Your task to perform on an android device: uninstall "Move to iOS" Image 0: 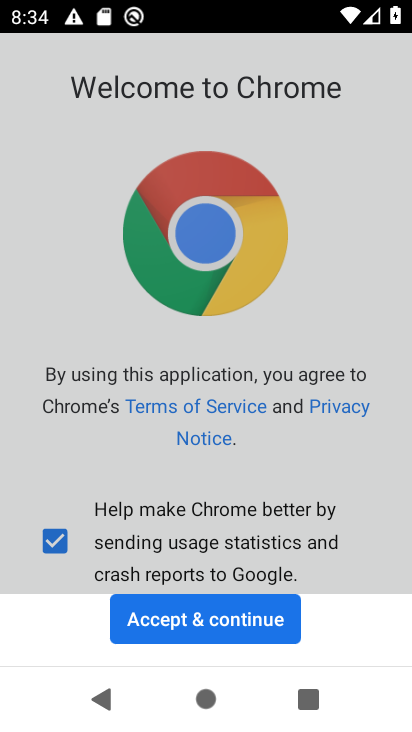
Step 0: press home button
Your task to perform on an android device: uninstall "Move to iOS" Image 1: 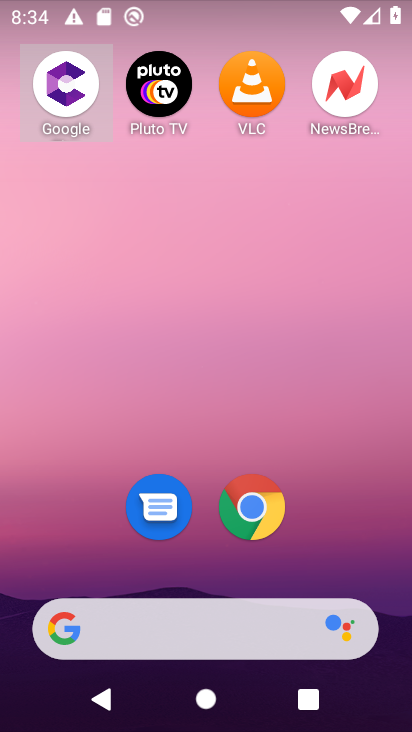
Step 1: drag from (189, 632) to (193, 109)
Your task to perform on an android device: uninstall "Move to iOS" Image 2: 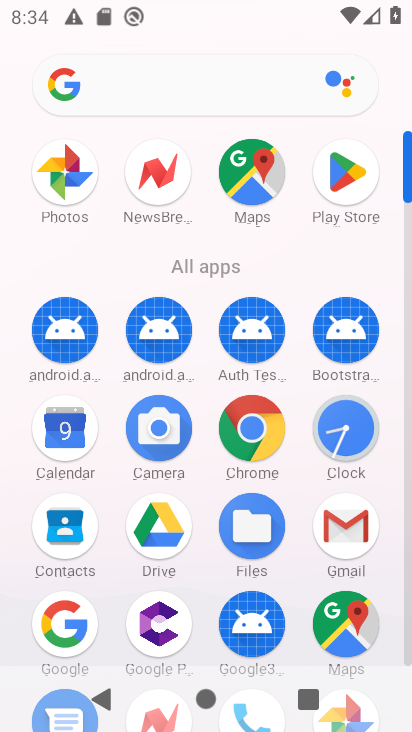
Step 2: click (351, 178)
Your task to perform on an android device: uninstall "Move to iOS" Image 3: 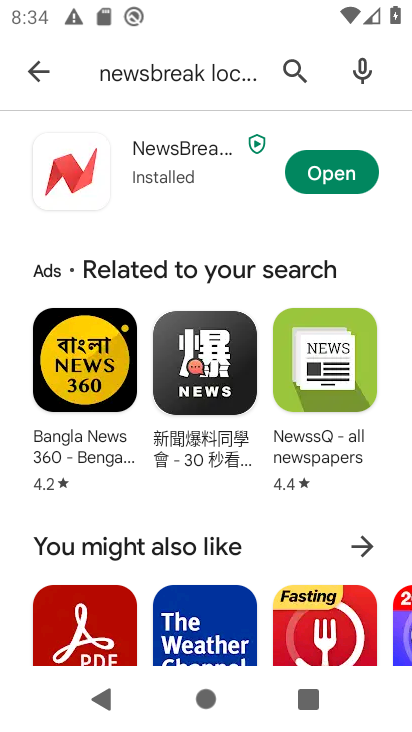
Step 3: click (295, 76)
Your task to perform on an android device: uninstall "Move to iOS" Image 4: 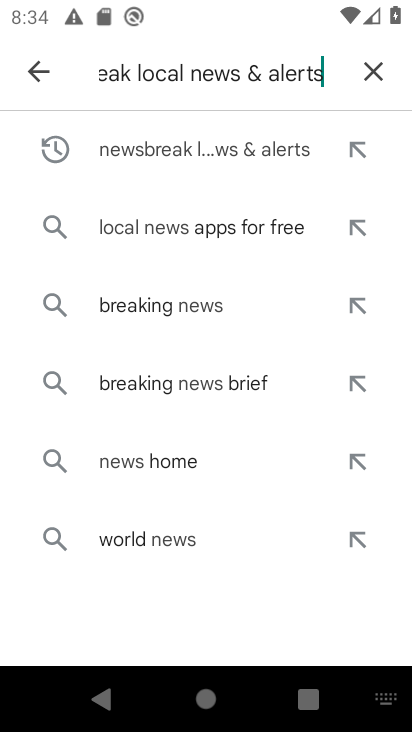
Step 4: click (382, 72)
Your task to perform on an android device: uninstall "Move to iOS" Image 5: 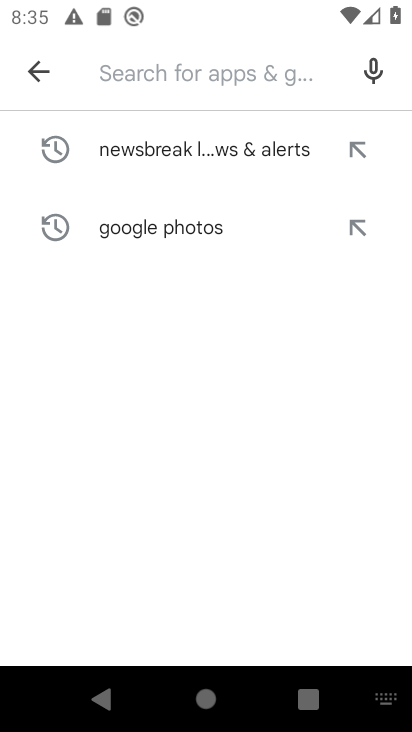
Step 5: type "Move to iOS"
Your task to perform on an android device: uninstall "Move to iOS" Image 6: 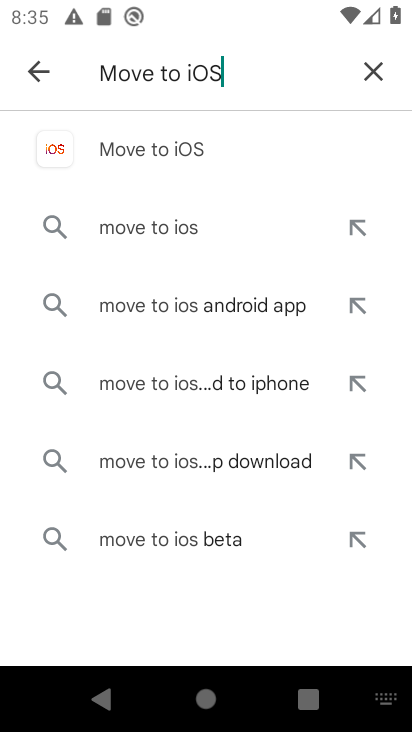
Step 6: click (172, 141)
Your task to perform on an android device: uninstall "Move to iOS" Image 7: 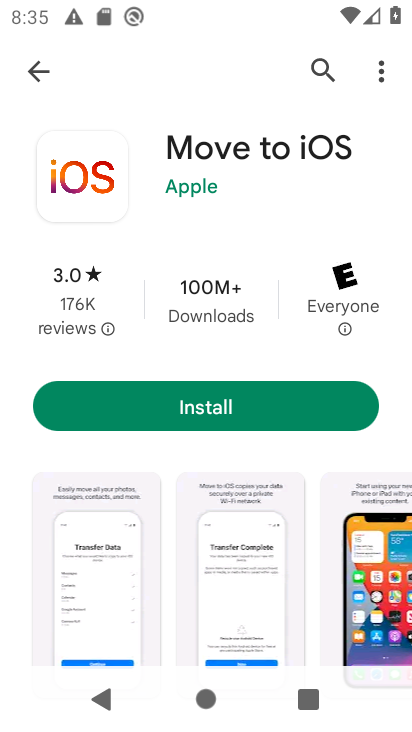
Step 7: task complete